Your task to perform on an android device: toggle notifications settings in the gmail app Image 0: 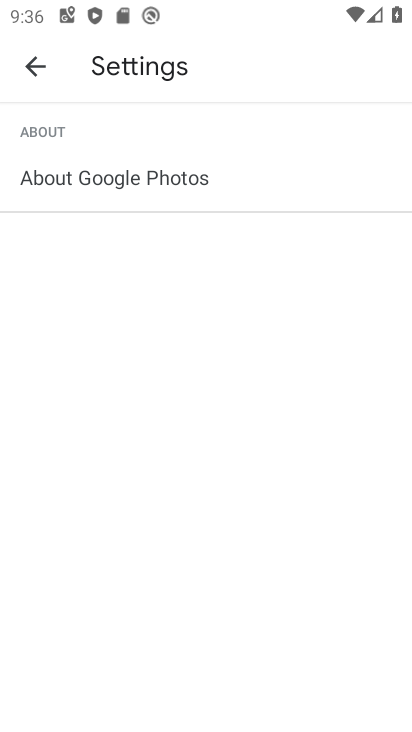
Step 0: press home button
Your task to perform on an android device: toggle notifications settings in the gmail app Image 1: 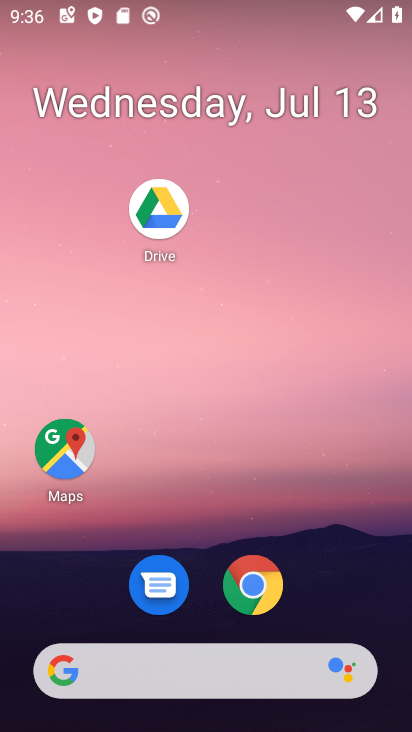
Step 1: drag from (223, 669) to (350, 140)
Your task to perform on an android device: toggle notifications settings in the gmail app Image 2: 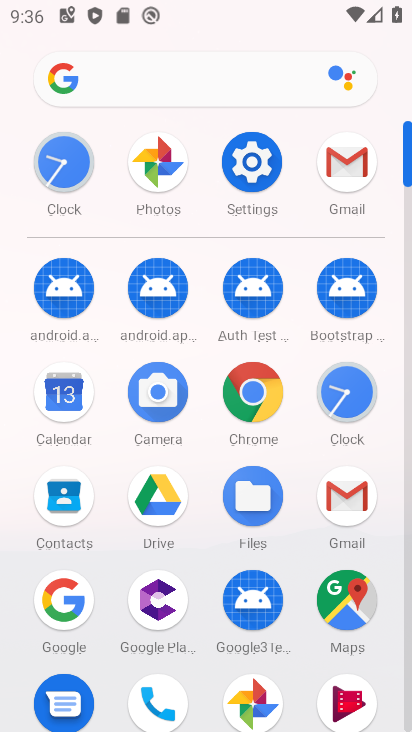
Step 2: click (342, 170)
Your task to perform on an android device: toggle notifications settings in the gmail app Image 3: 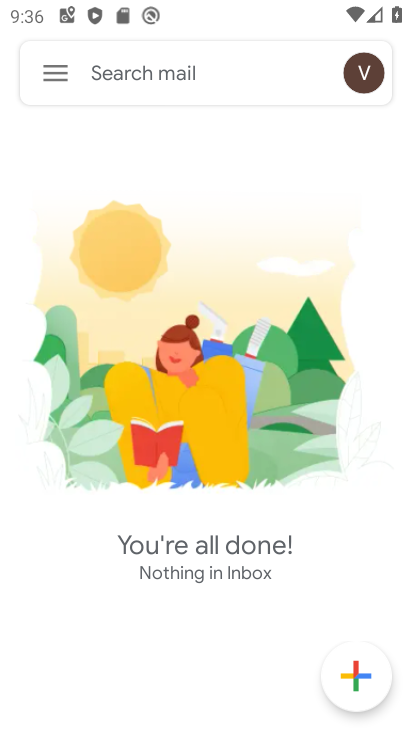
Step 3: click (61, 66)
Your task to perform on an android device: toggle notifications settings in the gmail app Image 4: 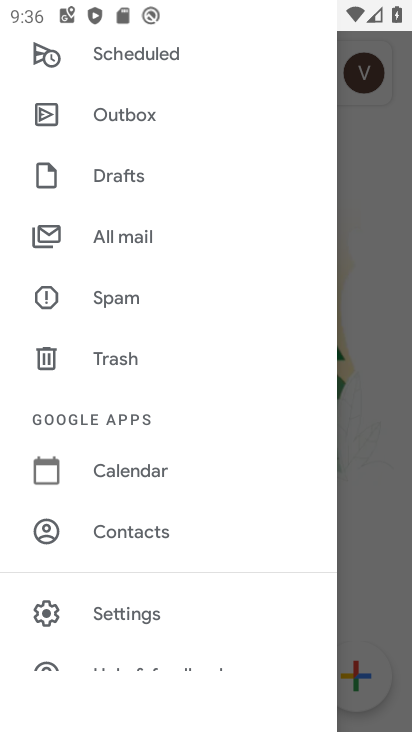
Step 4: click (151, 612)
Your task to perform on an android device: toggle notifications settings in the gmail app Image 5: 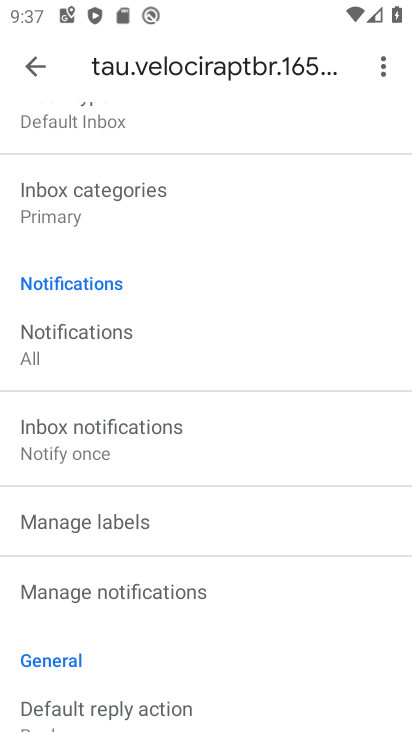
Step 5: click (119, 361)
Your task to perform on an android device: toggle notifications settings in the gmail app Image 6: 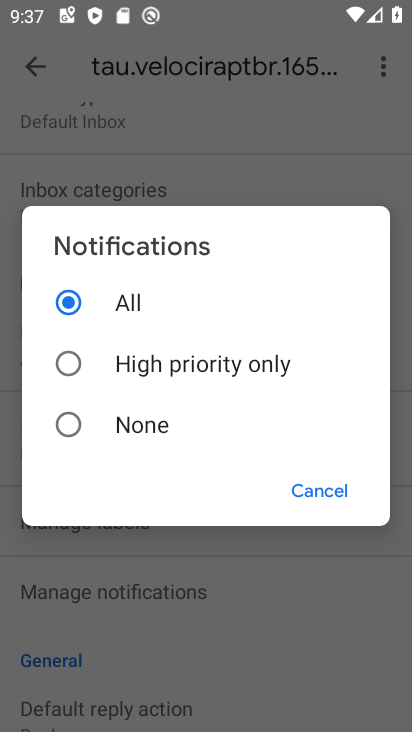
Step 6: click (69, 423)
Your task to perform on an android device: toggle notifications settings in the gmail app Image 7: 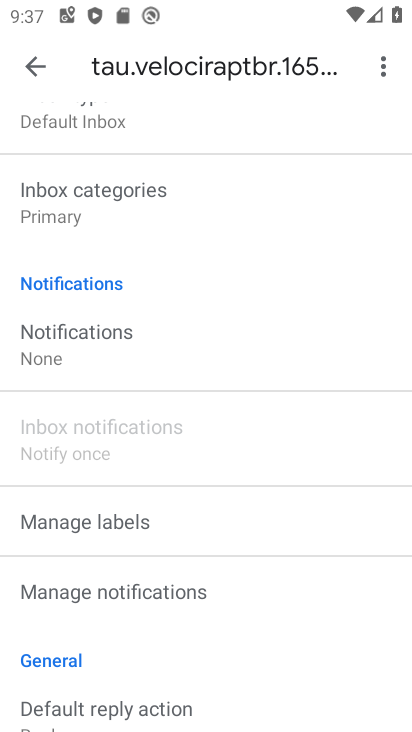
Step 7: task complete